Your task to perform on an android device: remove spam from my inbox in the gmail app Image 0: 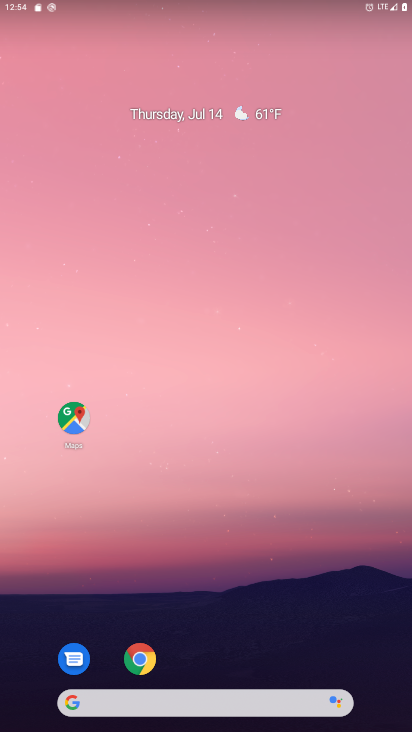
Step 0: press home button
Your task to perform on an android device: remove spam from my inbox in the gmail app Image 1: 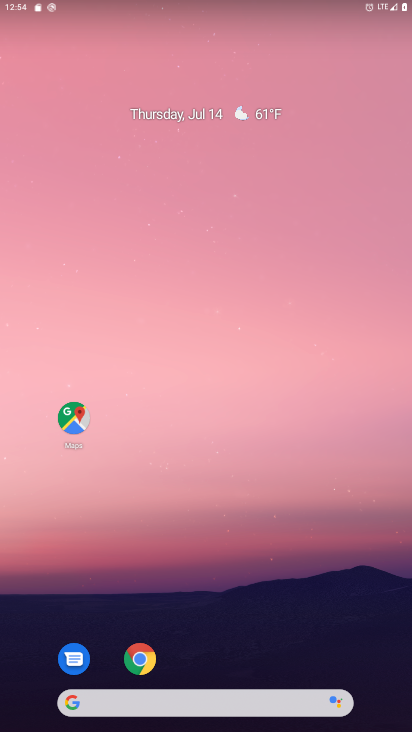
Step 1: drag from (224, 674) to (270, 166)
Your task to perform on an android device: remove spam from my inbox in the gmail app Image 2: 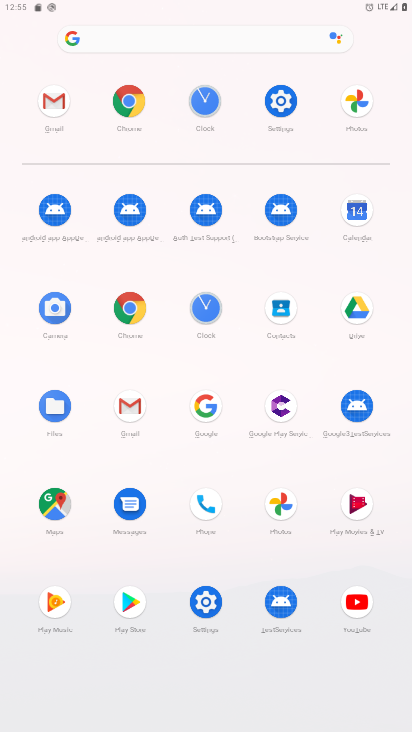
Step 2: click (126, 399)
Your task to perform on an android device: remove spam from my inbox in the gmail app Image 3: 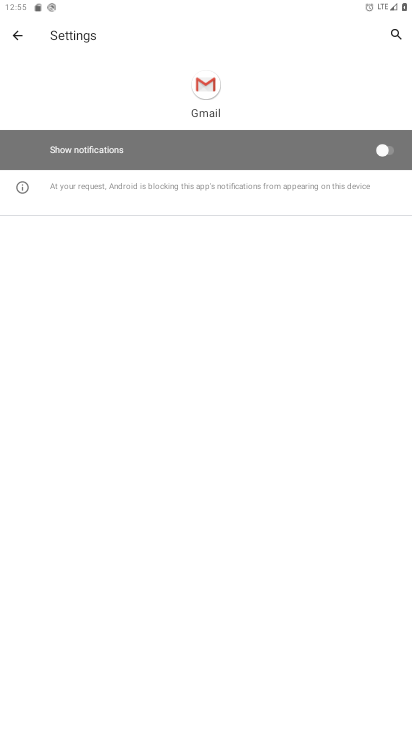
Step 3: click (21, 31)
Your task to perform on an android device: remove spam from my inbox in the gmail app Image 4: 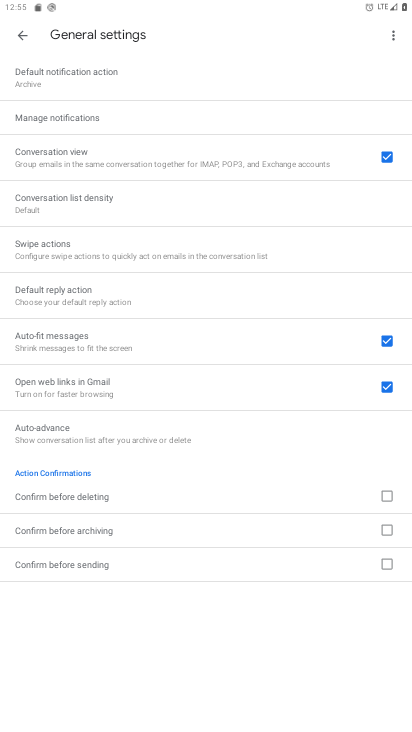
Step 4: click (20, 31)
Your task to perform on an android device: remove spam from my inbox in the gmail app Image 5: 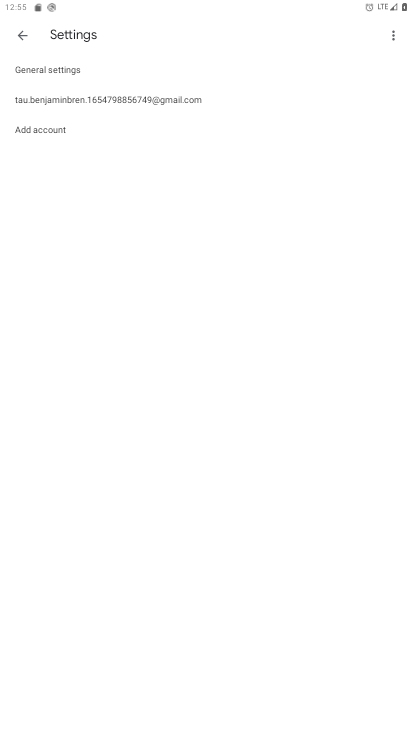
Step 5: click (18, 32)
Your task to perform on an android device: remove spam from my inbox in the gmail app Image 6: 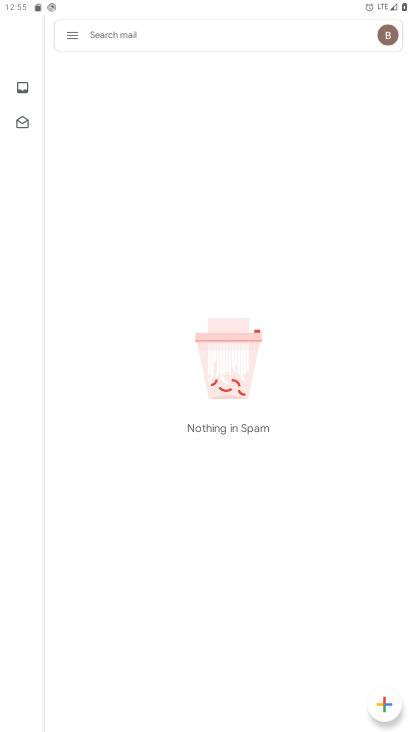
Step 6: click (76, 31)
Your task to perform on an android device: remove spam from my inbox in the gmail app Image 7: 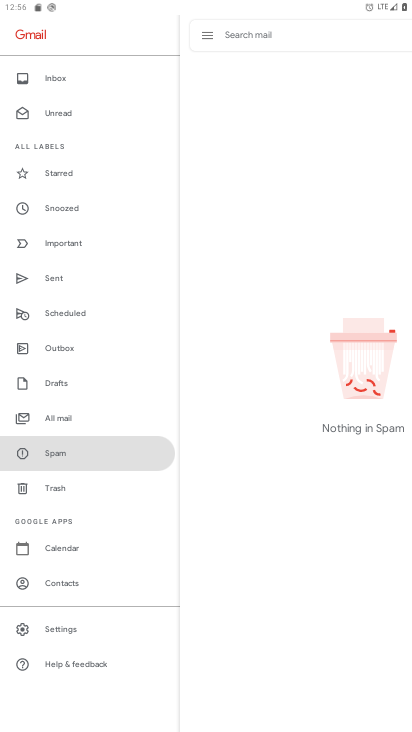
Step 7: click (64, 451)
Your task to perform on an android device: remove spam from my inbox in the gmail app Image 8: 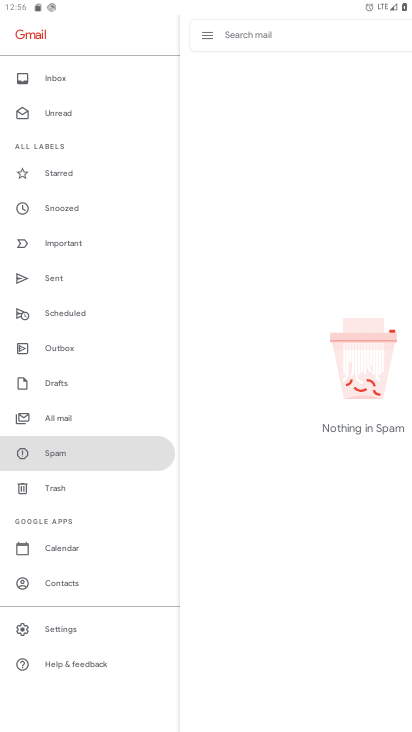
Step 8: task complete